Your task to perform on an android device: open app "Microsoft Excel" (install if not already installed) and enter user name: "kidnappers@icloud.com" and password: "Bessemerizes" Image 0: 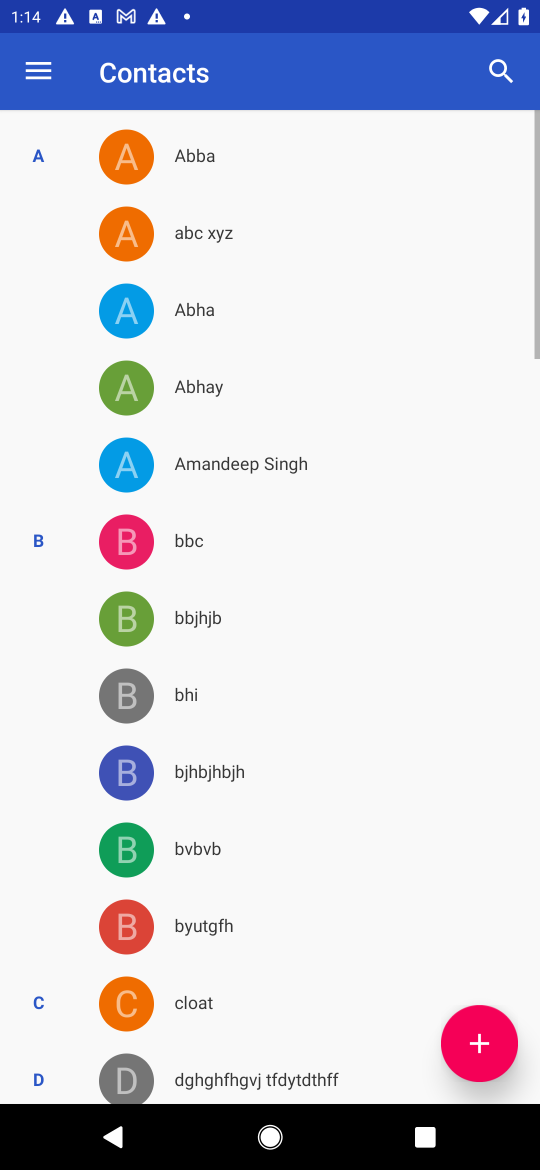
Step 0: press home button
Your task to perform on an android device: open app "Microsoft Excel" (install if not already installed) and enter user name: "kidnappers@icloud.com" and password: "Bessemerizes" Image 1: 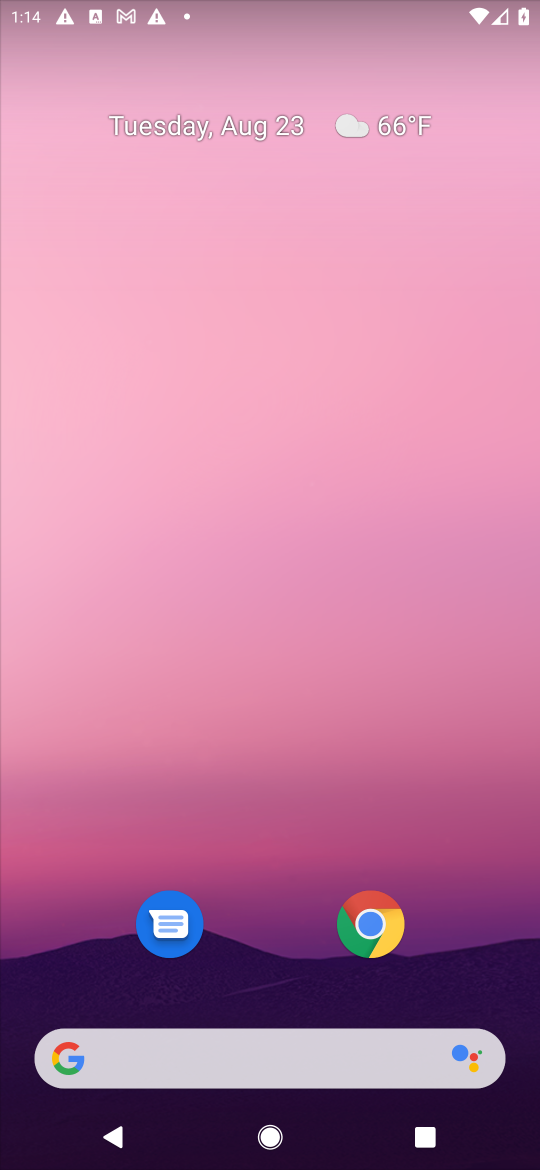
Step 1: drag from (456, 937) to (445, 108)
Your task to perform on an android device: open app "Microsoft Excel" (install if not already installed) and enter user name: "kidnappers@icloud.com" and password: "Bessemerizes" Image 2: 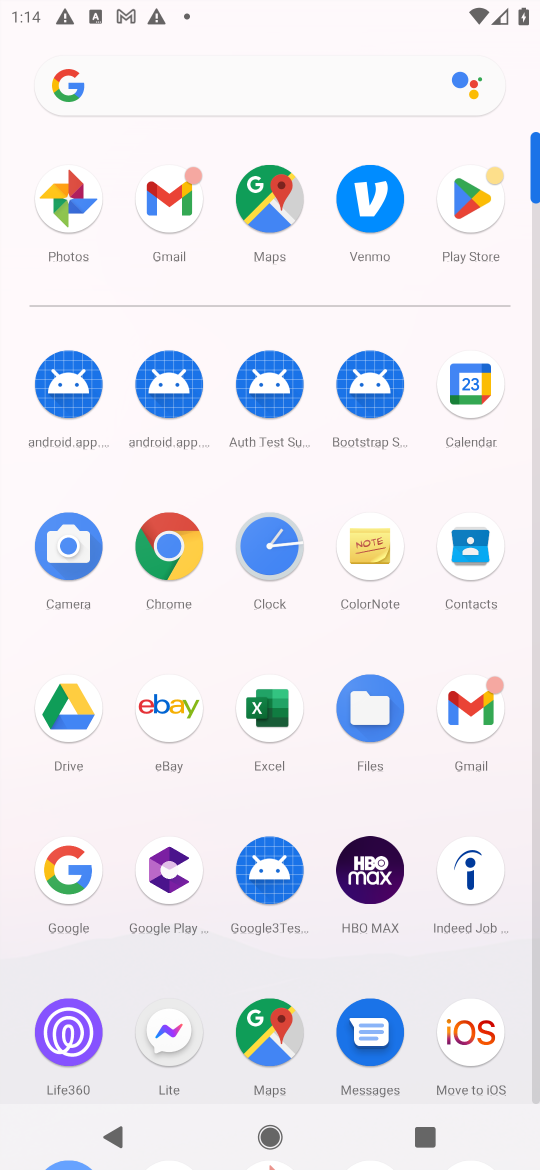
Step 2: click (478, 196)
Your task to perform on an android device: open app "Microsoft Excel" (install if not already installed) and enter user name: "kidnappers@icloud.com" and password: "Bessemerizes" Image 3: 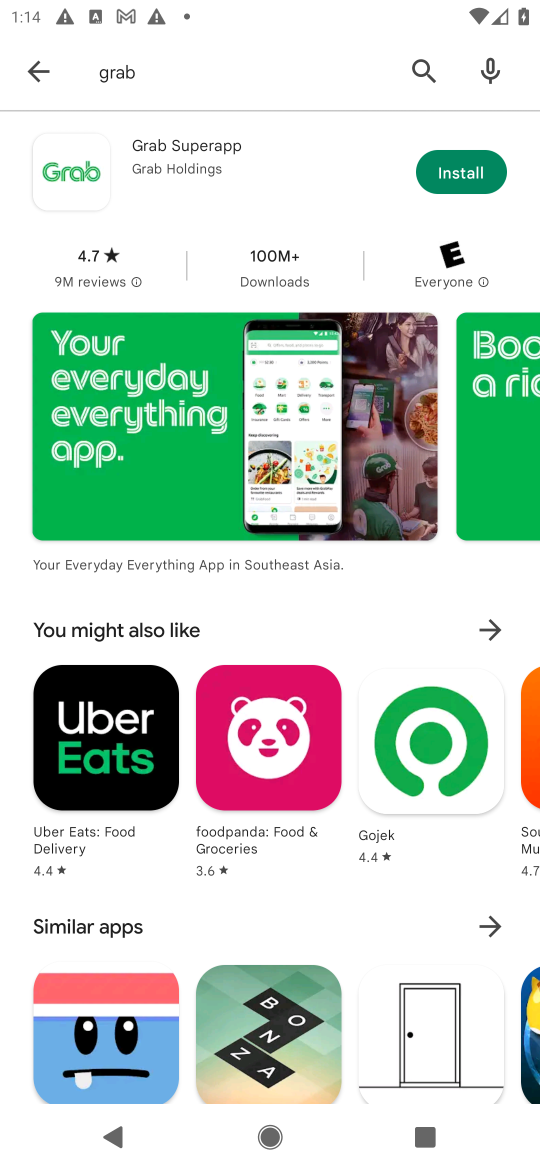
Step 3: press back button
Your task to perform on an android device: open app "Microsoft Excel" (install if not already installed) and enter user name: "kidnappers@icloud.com" and password: "Bessemerizes" Image 4: 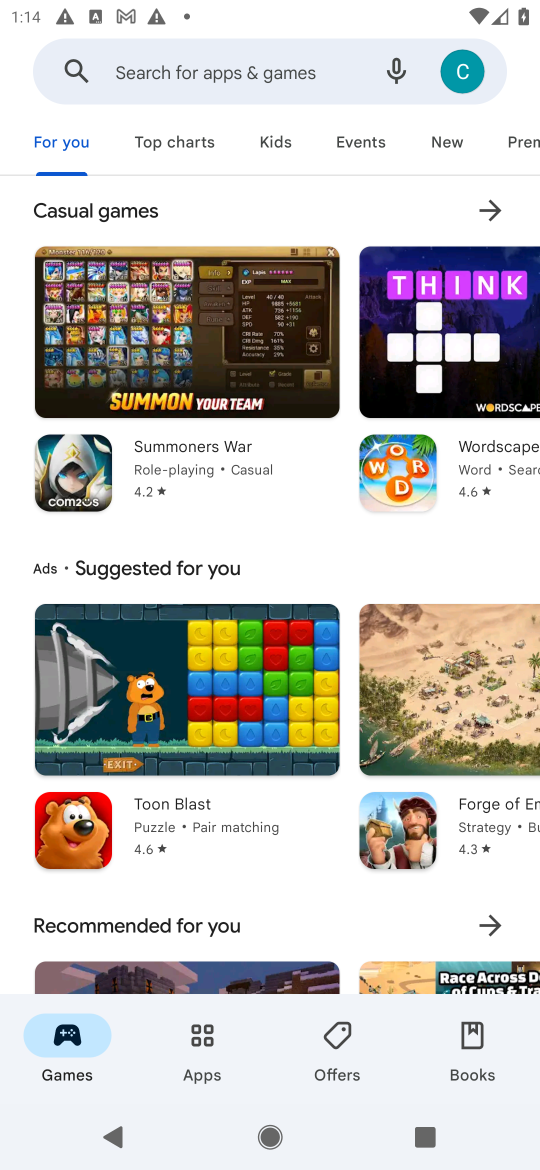
Step 4: click (226, 59)
Your task to perform on an android device: open app "Microsoft Excel" (install if not already installed) and enter user name: "kidnappers@icloud.com" and password: "Bessemerizes" Image 5: 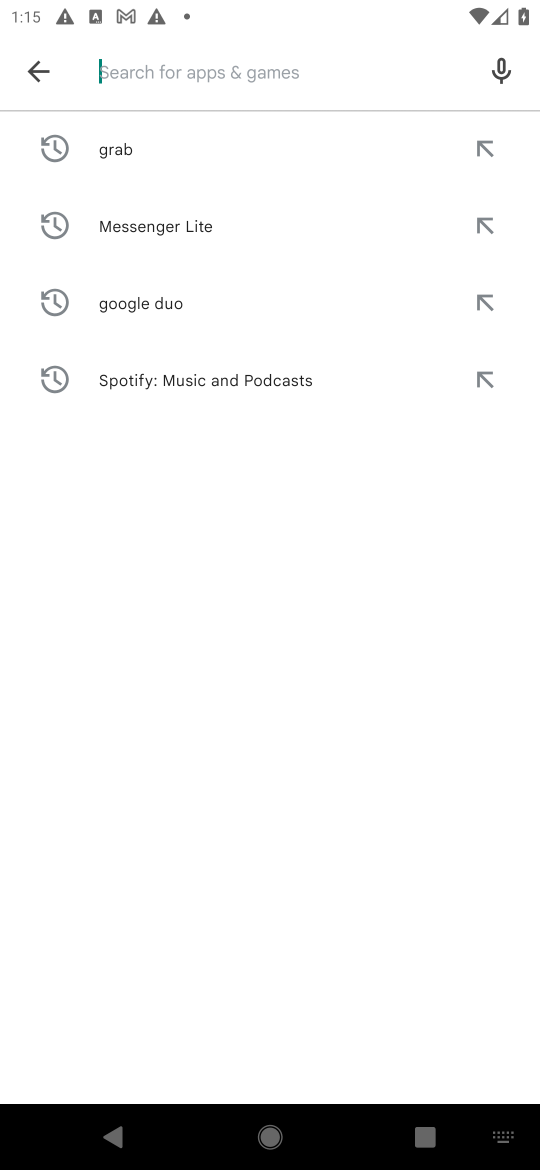
Step 5: press enter
Your task to perform on an android device: open app "Microsoft Excel" (install if not already installed) and enter user name: "kidnappers@icloud.com" and password: "Bessemerizes" Image 6: 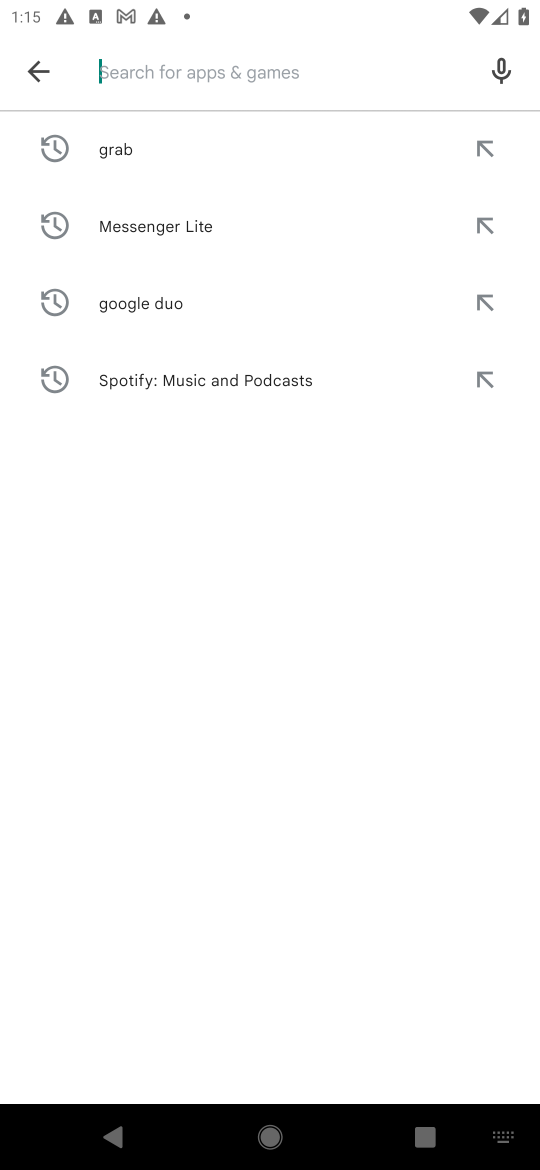
Step 6: type "Microsoft Excel"
Your task to perform on an android device: open app "Microsoft Excel" (install if not already installed) and enter user name: "kidnappers@icloud.com" and password: "Bessemerizes" Image 7: 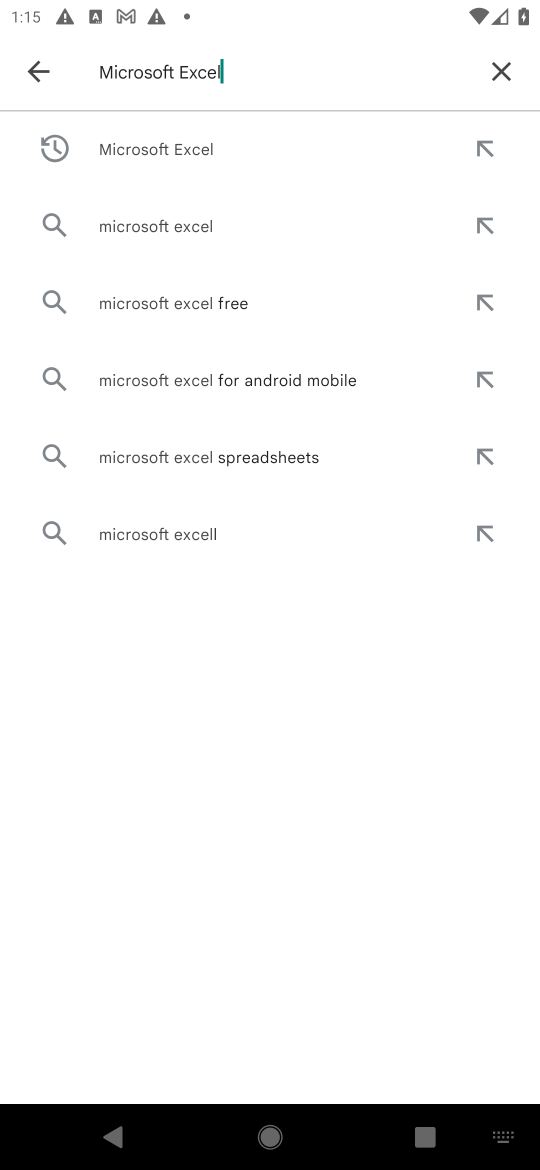
Step 7: click (147, 152)
Your task to perform on an android device: open app "Microsoft Excel" (install if not already installed) and enter user name: "kidnappers@icloud.com" and password: "Bessemerizes" Image 8: 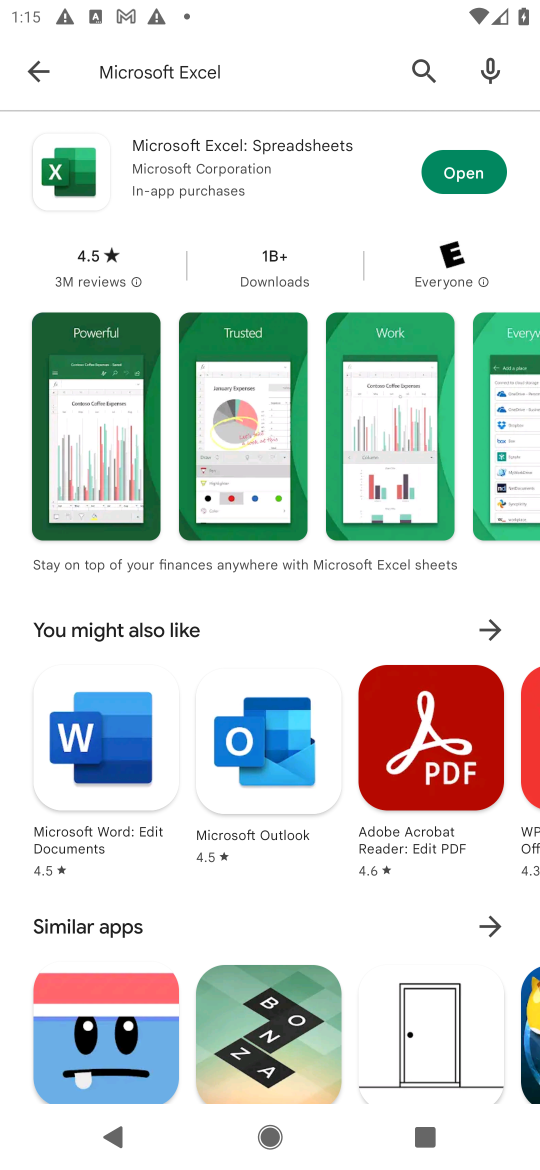
Step 8: click (470, 176)
Your task to perform on an android device: open app "Microsoft Excel" (install if not already installed) and enter user name: "kidnappers@icloud.com" and password: "Bessemerizes" Image 9: 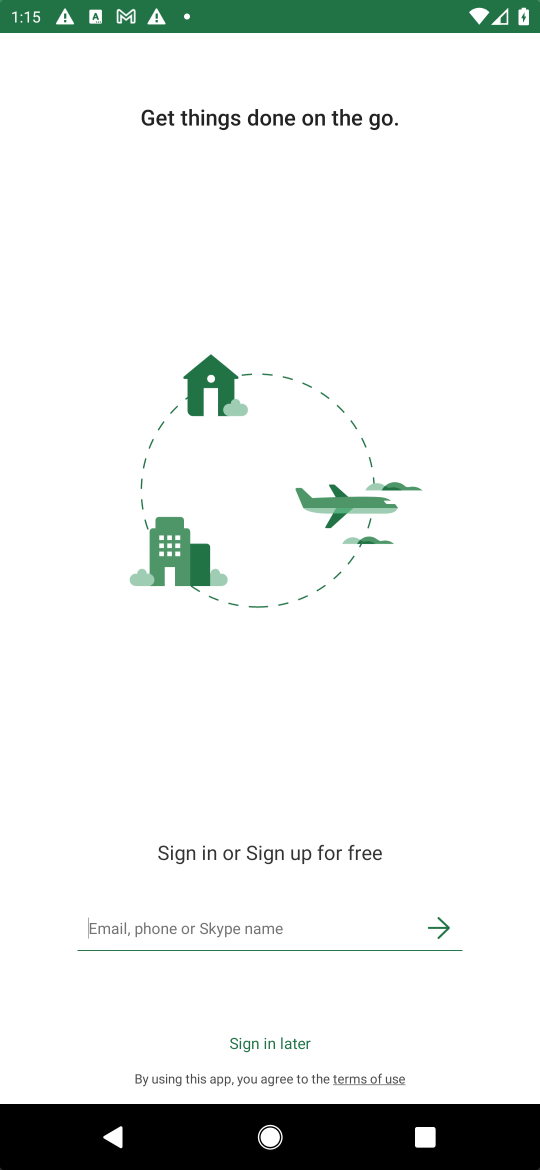
Step 9: click (304, 930)
Your task to perform on an android device: open app "Microsoft Excel" (install if not already installed) and enter user name: "kidnappers@icloud.com" and password: "Bessemerizes" Image 10: 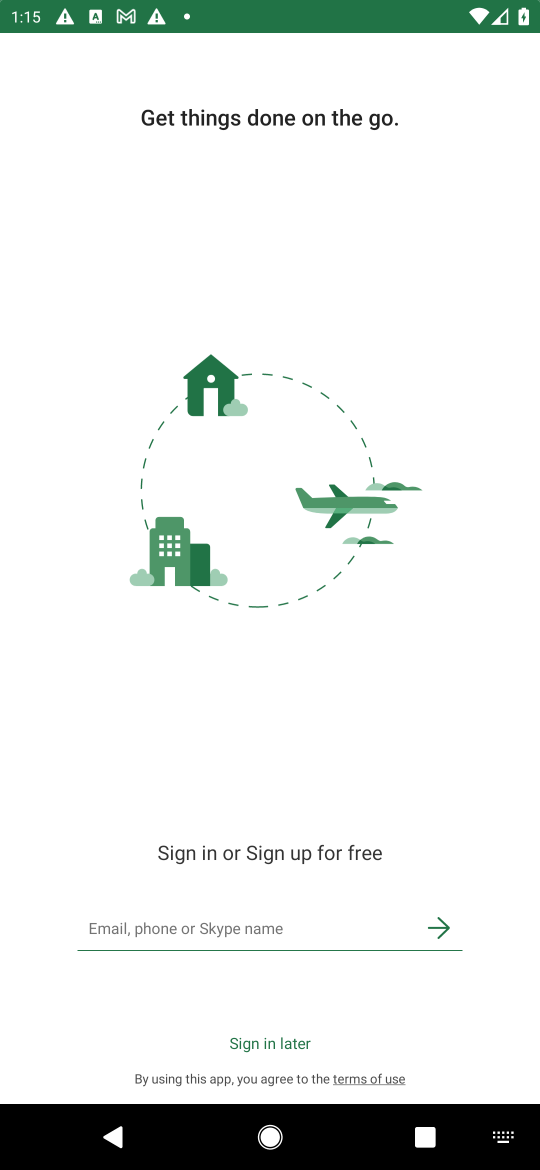
Step 10: click (104, 927)
Your task to perform on an android device: open app "Microsoft Excel" (install if not already installed) and enter user name: "kidnappers@icloud.com" and password: "Bessemerizes" Image 11: 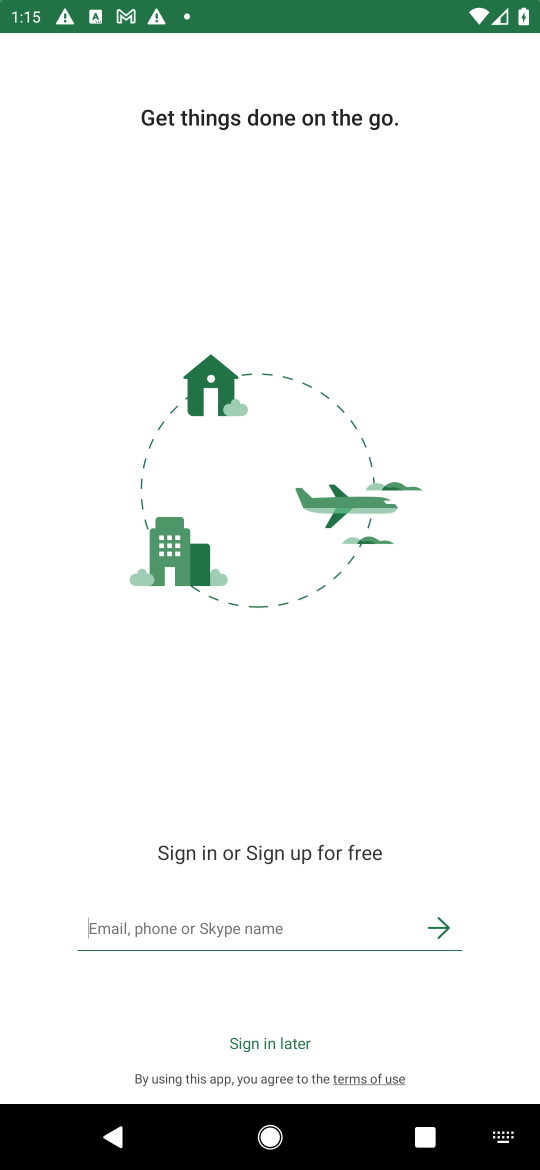
Step 11: type "kidnappers@icloud.com"
Your task to perform on an android device: open app "Microsoft Excel" (install if not already installed) and enter user name: "kidnappers@icloud.com" and password: "Bessemerizes" Image 12: 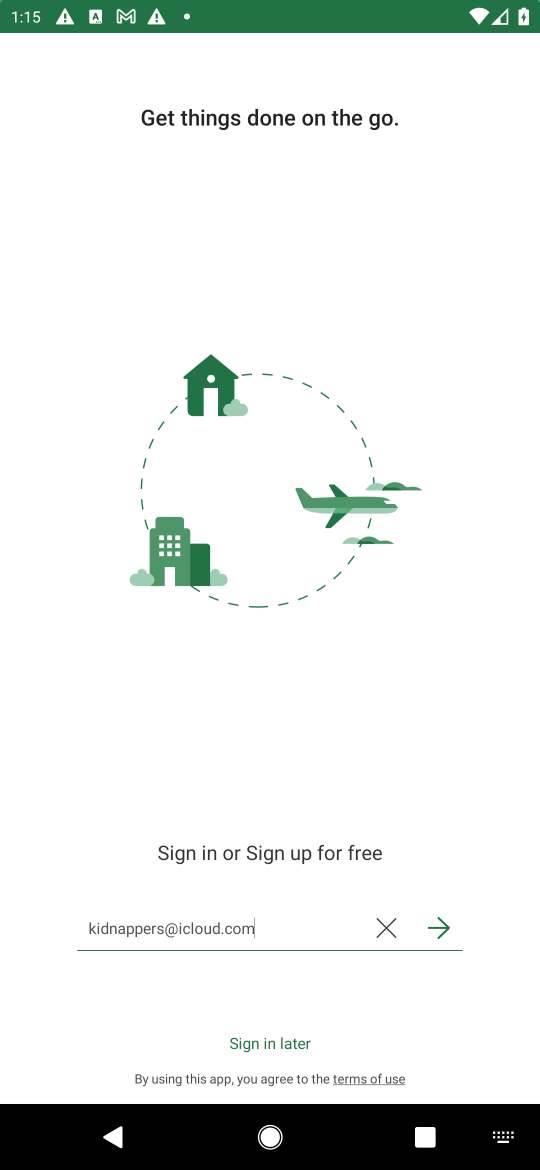
Step 12: press enter
Your task to perform on an android device: open app "Microsoft Excel" (install if not already installed) and enter user name: "kidnappers@icloud.com" and password: "Bessemerizes" Image 13: 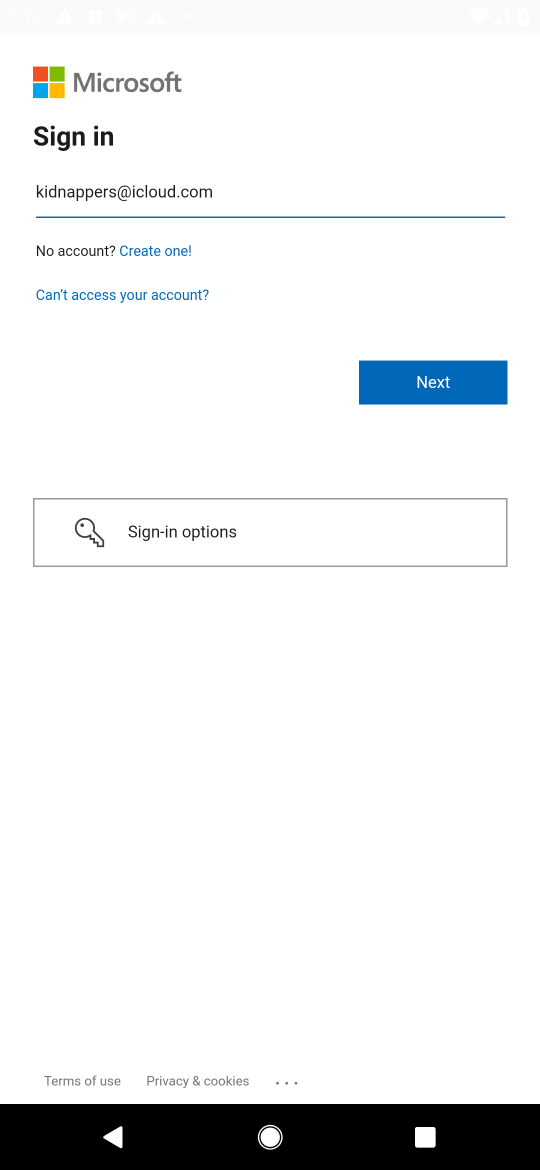
Step 13: click (443, 386)
Your task to perform on an android device: open app "Microsoft Excel" (install if not already installed) and enter user name: "kidnappers@icloud.com" and password: "Bessemerizes" Image 14: 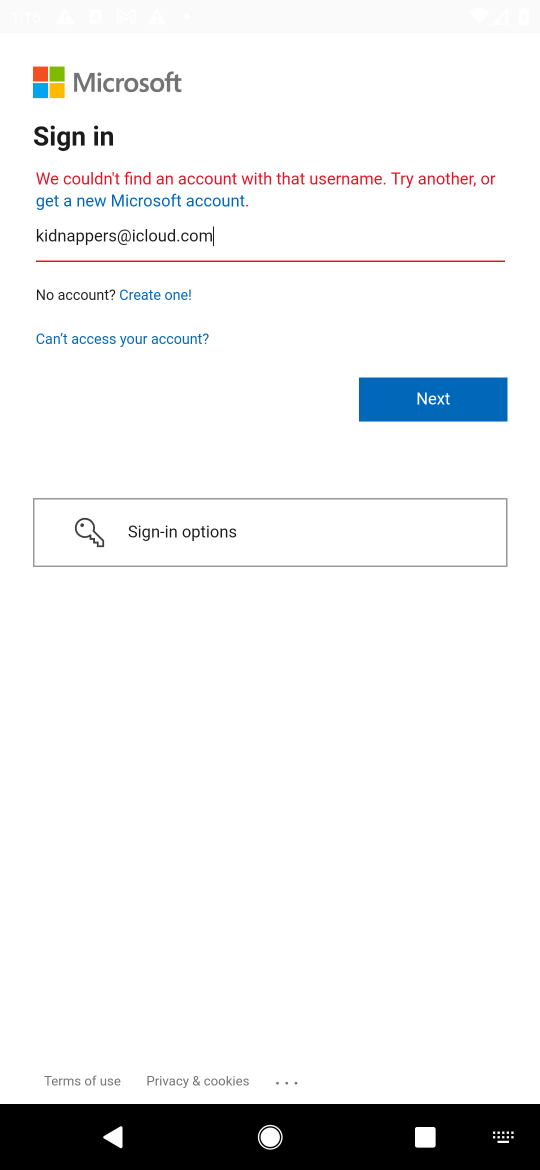
Step 14: task complete